Your task to perform on an android device: Open Google Maps Image 0: 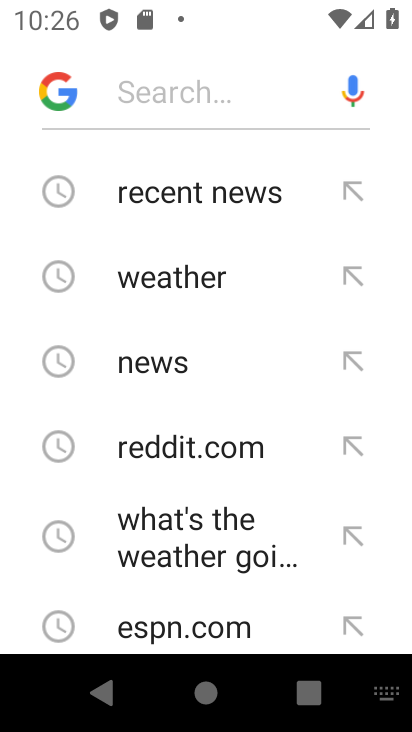
Step 0: press home button
Your task to perform on an android device: Open Google Maps Image 1: 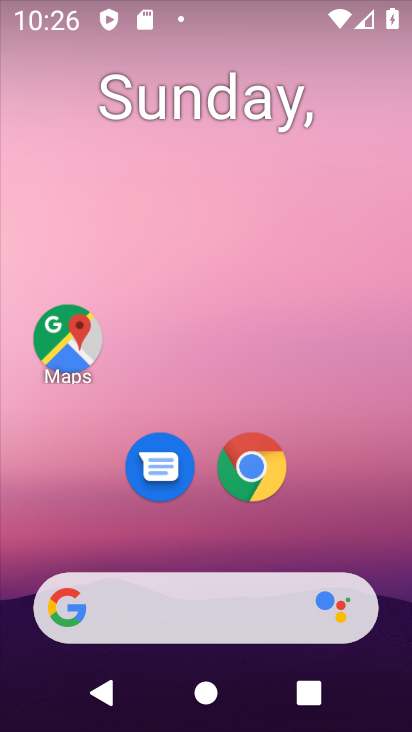
Step 1: click (202, 540)
Your task to perform on an android device: Open Google Maps Image 2: 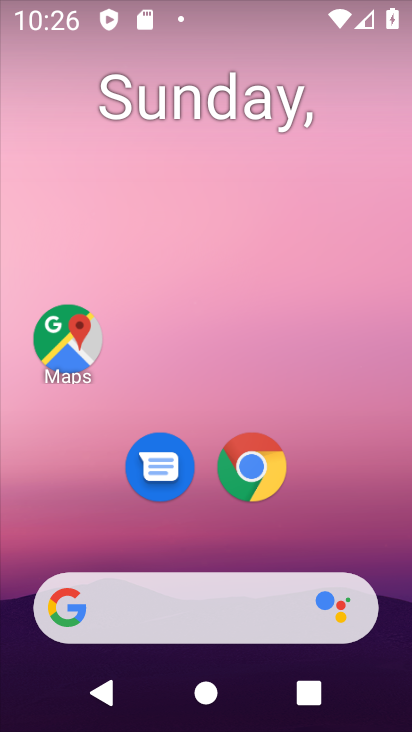
Step 2: click (68, 351)
Your task to perform on an android device: Open Google Maps Image 3: 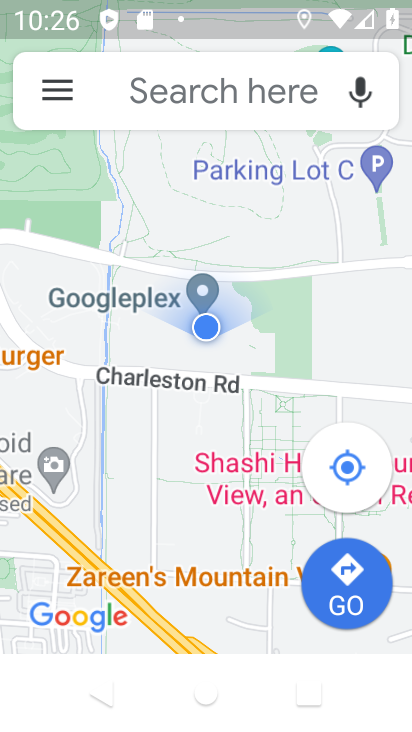
Step 3: task complete